Your task to perform on an android device: Open Google Maps Image 0: 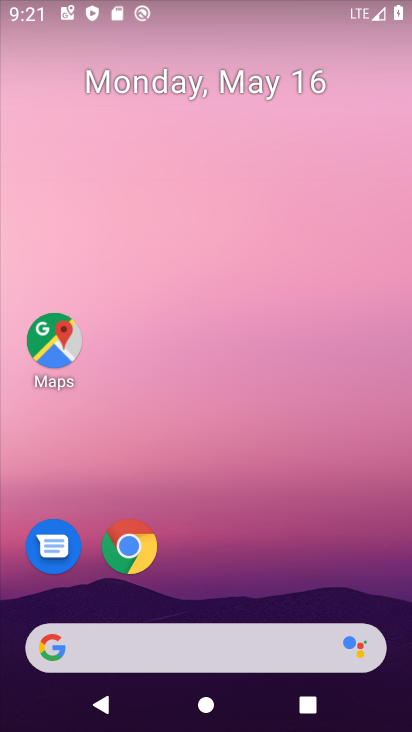
Step 0: drag from (307, 637) to (221, 216)
Your task to perform on an android device: Open Google Maps Image 1: 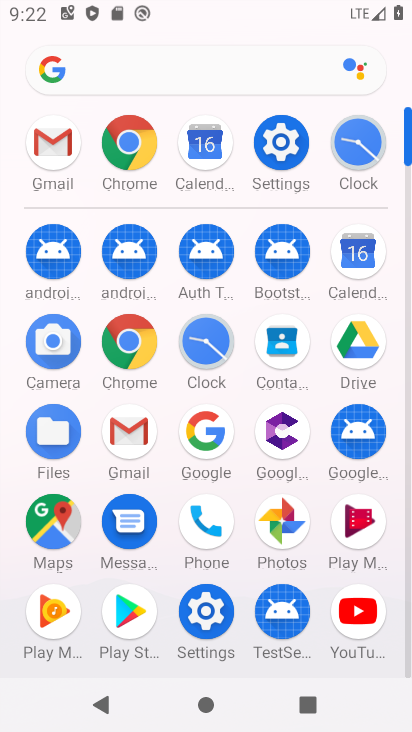
Step 1: click (56, 528)
Your task to perform on an android device: Open Google Maps Image 2: 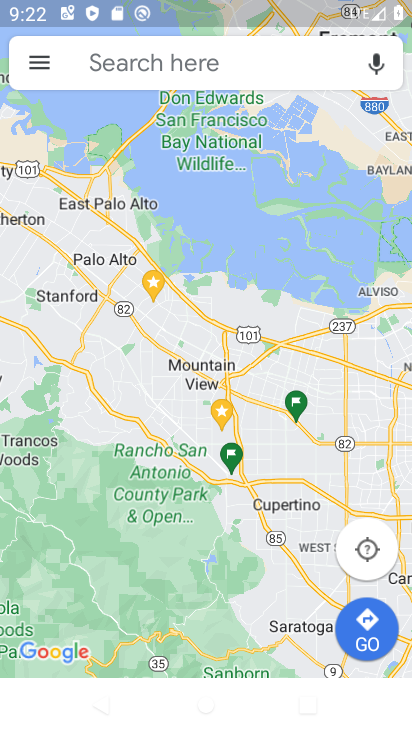
Step 2: click (374, 544)
Your task to perform on an android device: Open Google Maps Image 3: 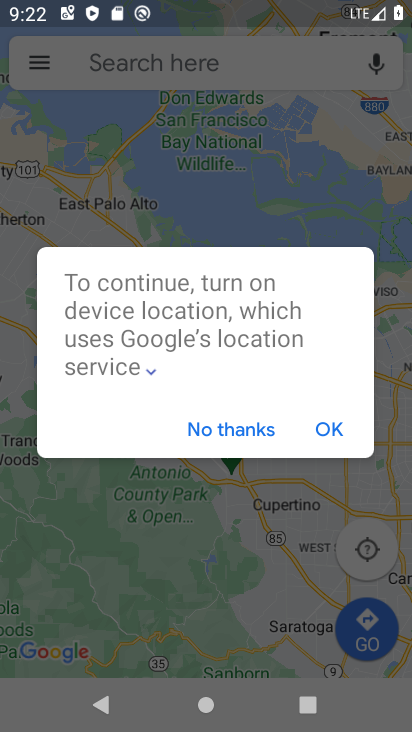
Step 3: click (340, 431)
Your task to perform on an android device: Open Google Maps Image 4: 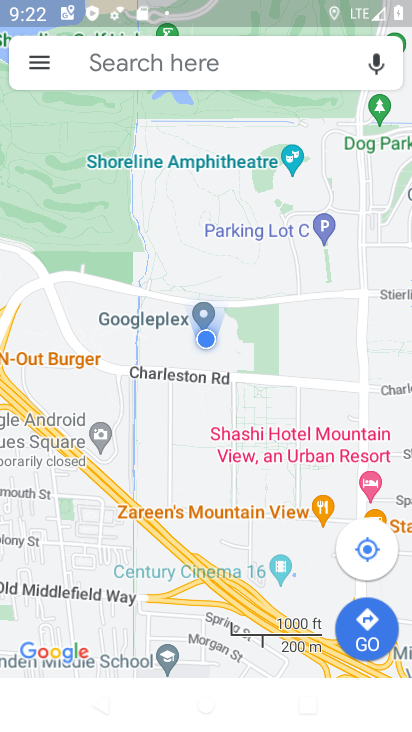
Step 4: task complete